Your task to perform on an android device: toggle improve location accuracy Image 0: 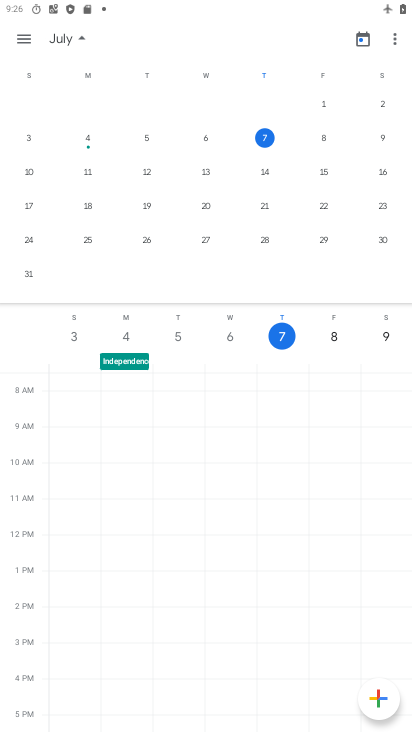
Step 0: press home button
Your task to perform on an android device: toggle improve location accuracy Image 1: 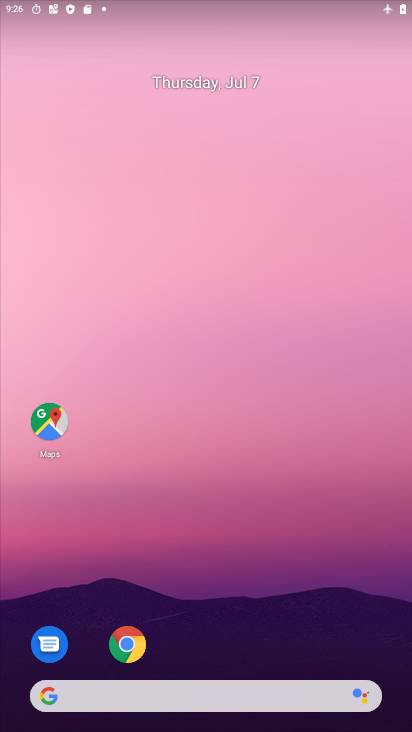
Step 1: drag from (275, 615) to (245, 91)
Your task to perform on an android device: toggle improve location accuracy Image 2: 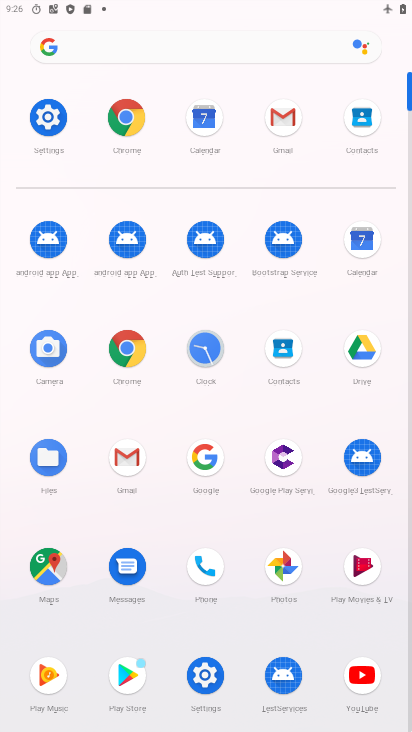
Step 2: click (40, 117)
Your task to perform on an android device: toggle improve location accuracy Image 3: 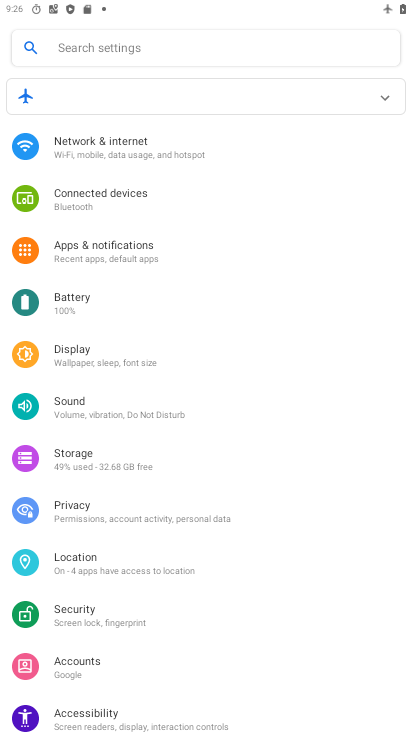
Step 3: click (95, 561)
Your task to perform on an android device: toggle improve location accuracy Image 4: 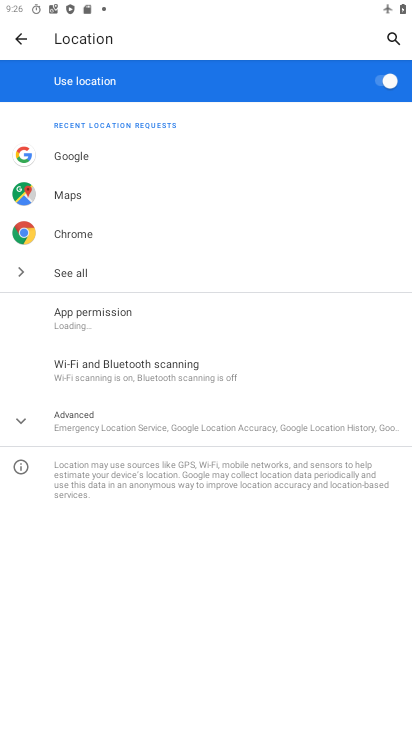
Step 4: click (100, 416)
Your task to perform on an android device: toggle improve location accuracy Image 5: 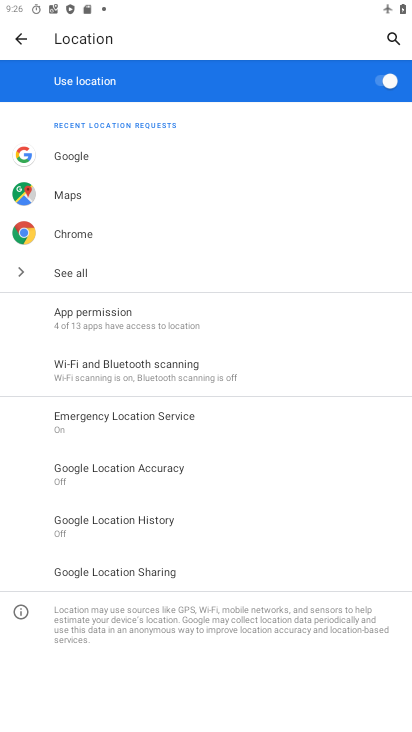
Step 5: click (176, 472)
Your task to perform on an android device: toggle improve location accuracy Image 6: 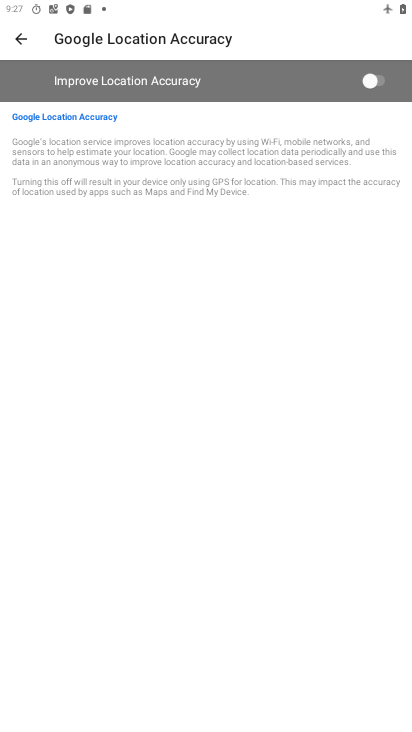
Step 6: click (365, 84)
Your task to perform on an android device: toggle improve location accuracy Image 7: 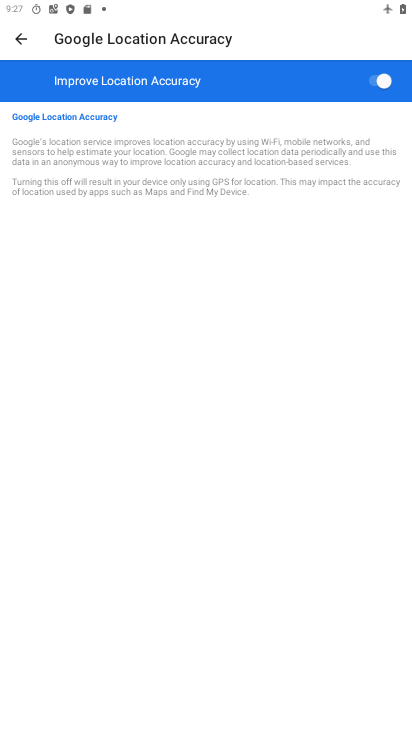
Step 7: task complete